Your task to perform on an android device: move an email to a new category in the gmail app Image 0: 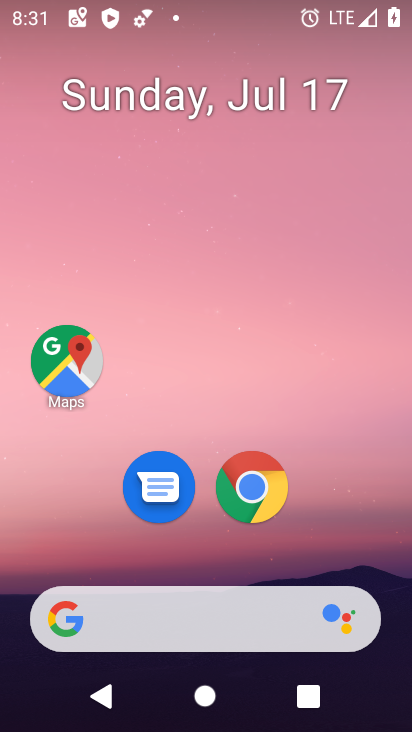
Step 0: drag from (177, 577) to (259, 11)
Your task to perform on an android device: move an email to a new category in the gmail app Image 1: 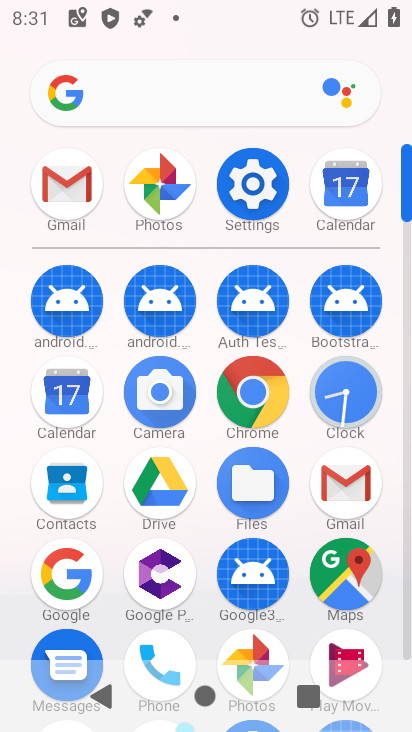
Step 1: click (332, 485)
Your task to perform on an android device: move an email to a new category in the gmail app Image 2: 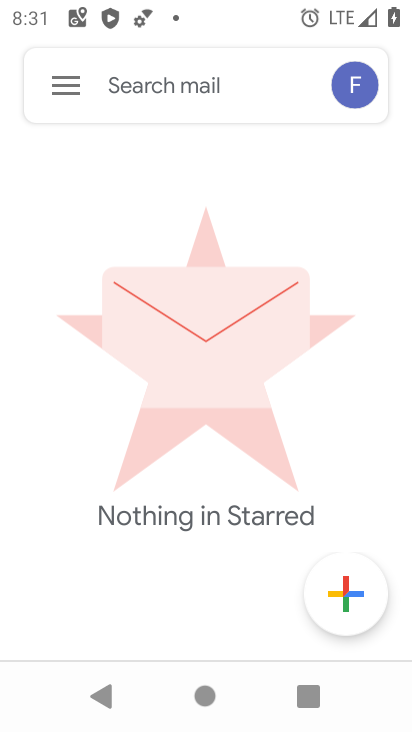
Step 2: click (58, 90)
Your task to perform on an android device: move an email to a new category in the gmail app Image 3: 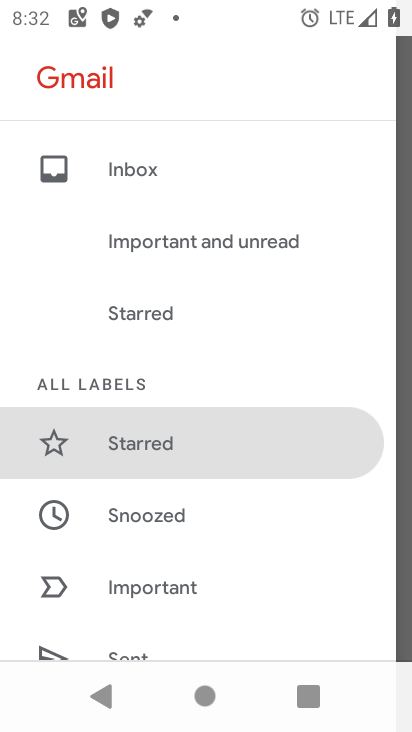
Step 3: drag from (177, 637) to (223, 137)
Your task to perform on an android device: move an email to a new category in the gmail app Image 4: 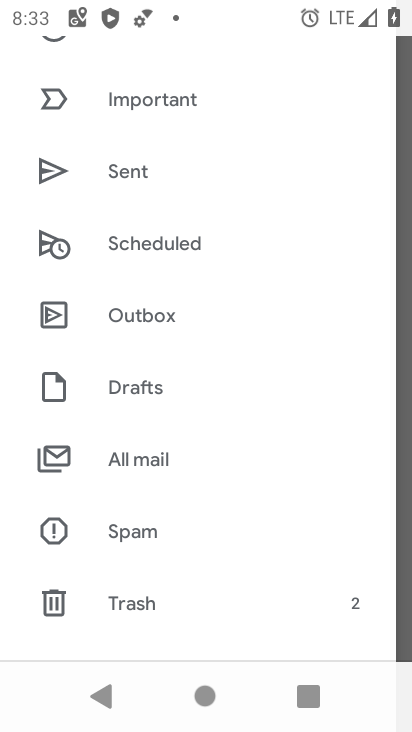
Step 4: press back button
Your task to perform on an android device: move an email to a new category in the gmail app Image 5: 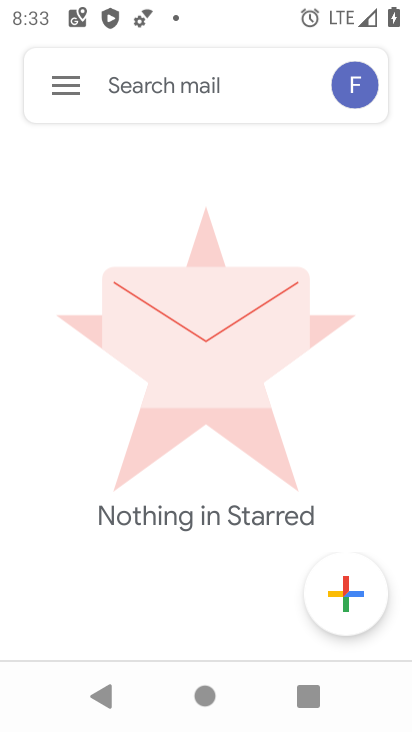
Step 5: click (64, 73)
Your task to perform on an android device: move an email to a new category in the gmail app Image 6: 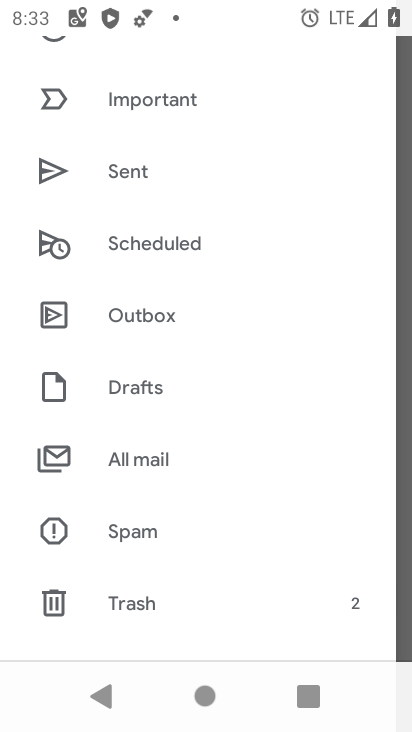
Step 6: click (148, 453)
Your task to perform on an android device: move an email to a new category in the gmail app Image 7: 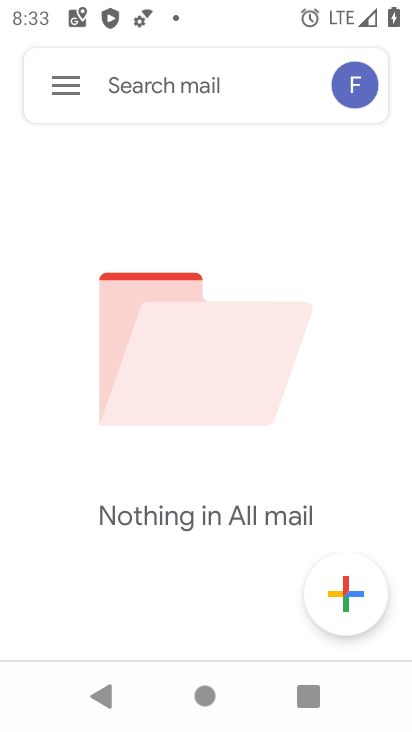
Step 7: task complete